Your task to perform on an android device: turn pop-ups on in chrome Image 0: 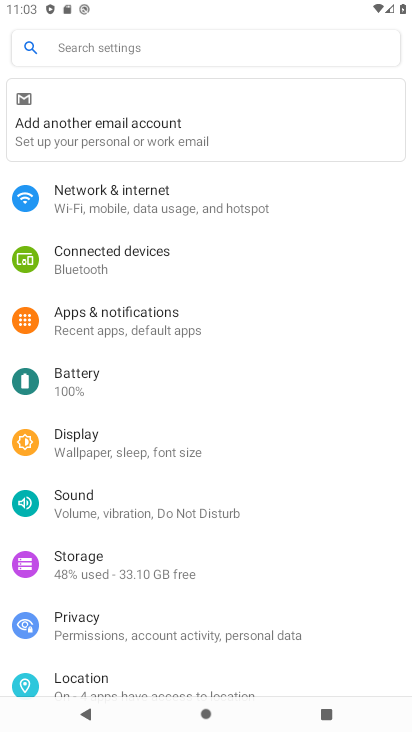
Step 0: press home button
Your task to perform on an android device: turn pop-ups on in chrome Image 1: 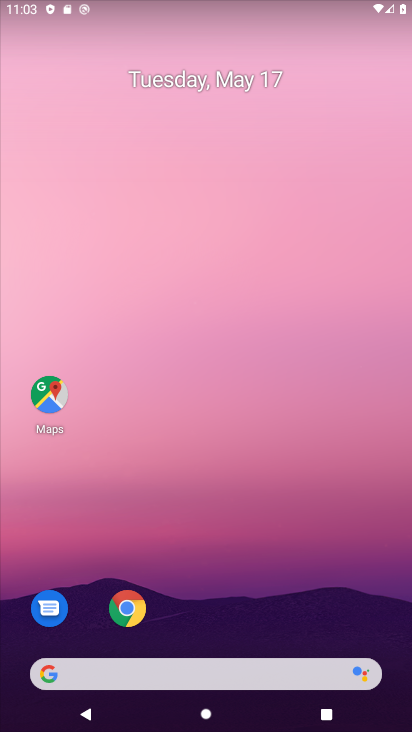
Step 1: click (135, 601)
Your task to perform on an android device: turn pop-ups on in chrome Image 2: 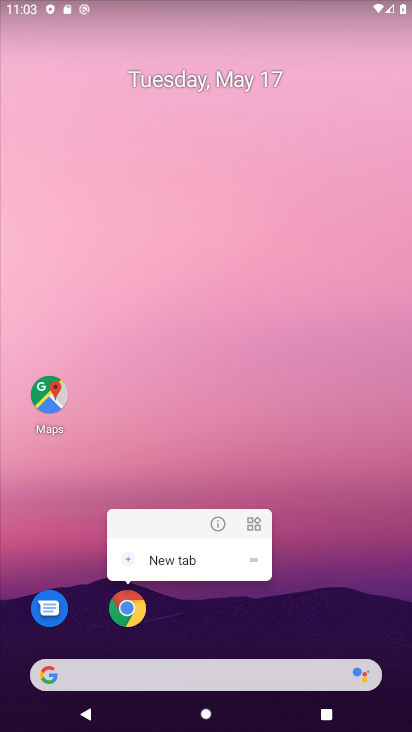
Step 2: click (137, 604)
Your task to perform on an android device: turn pop-ups on in chrome Image 3: 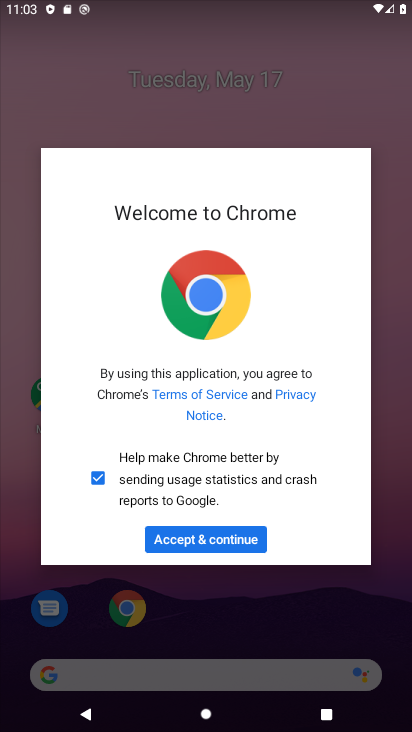
Step 3: click (214, 536)
Your task to perform on an android device: turn pop-ups on in chrome Image 4: 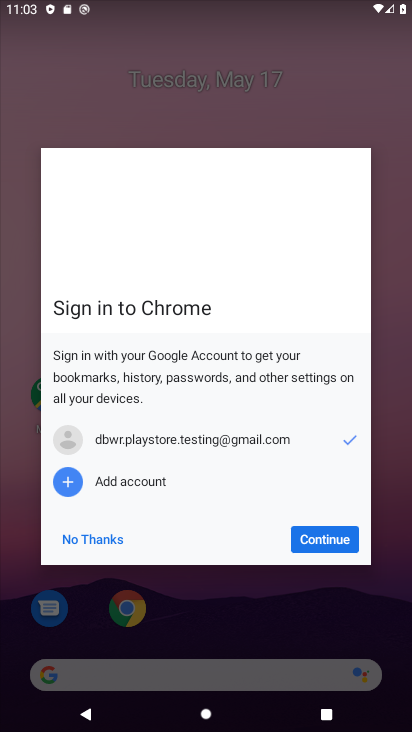
Step 4: click (304, 538)
Your task to perform on an android device: turn pop-ups on in chrome Image 5: 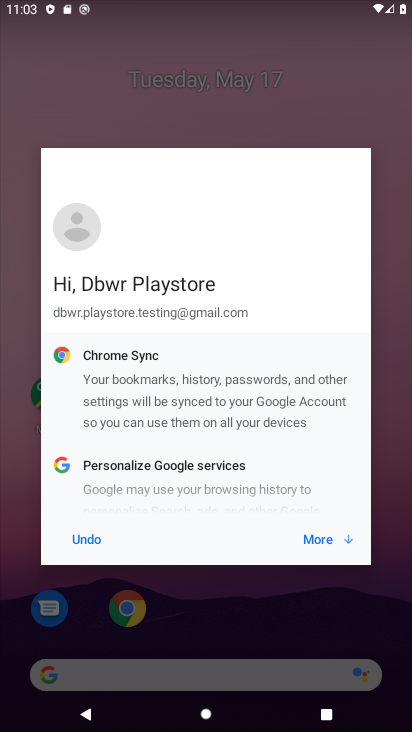
Step 5: click (301, 538)
Your task to perform on an android device: turn pop-ups on in chrome Image 6: 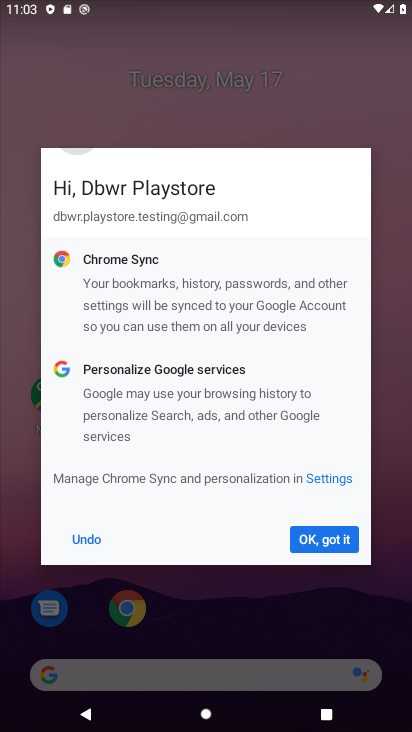
Step 6: click (281, 538)
Your task to perform on an android device: turn pop-ups on in chrome Image 7: 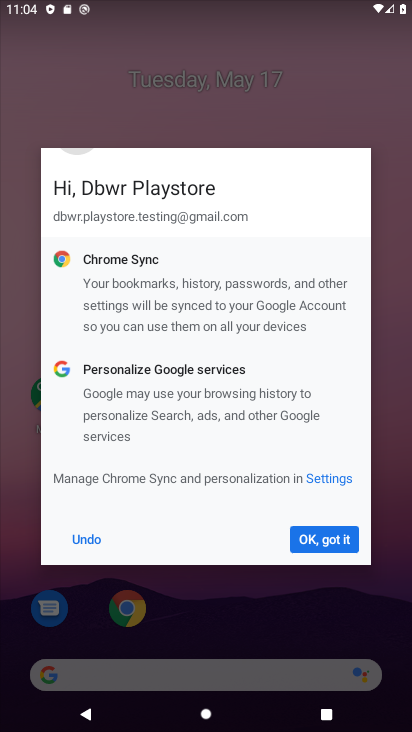
Step 7: click (306, 554)
Your task to perform on an android device: turn pop-ups on in chrome Image 8: 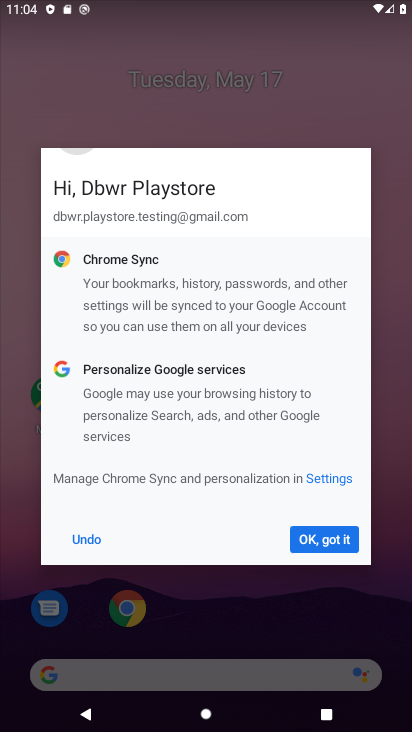
Step 8: click (320, 539)
Your task to perform on an android device: turn pop-ups on in chrome Image 9: 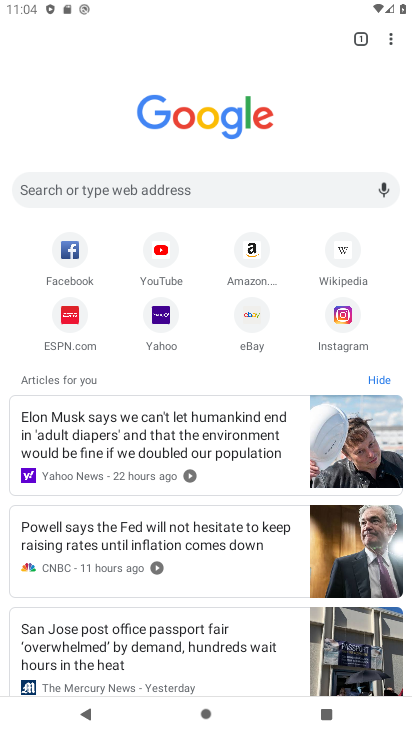
Step 9: click (396, 48)
Your task to perform on an android device: turn pop-ups on in chrome Image 10: 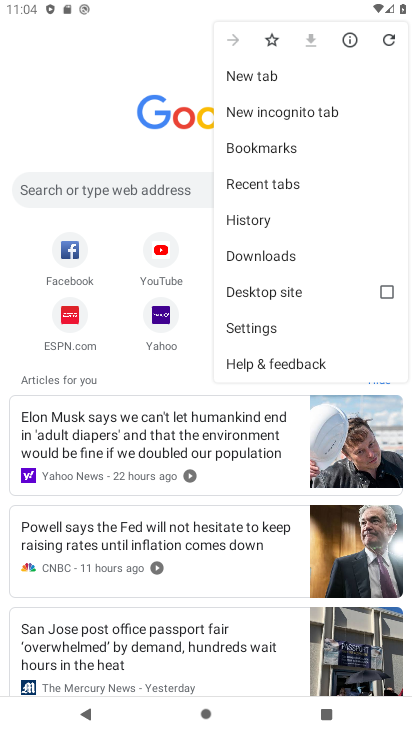
Step 10: click (256, 327)
Your task to perform on an android device: turn pop-ups on in chrome Image 11: 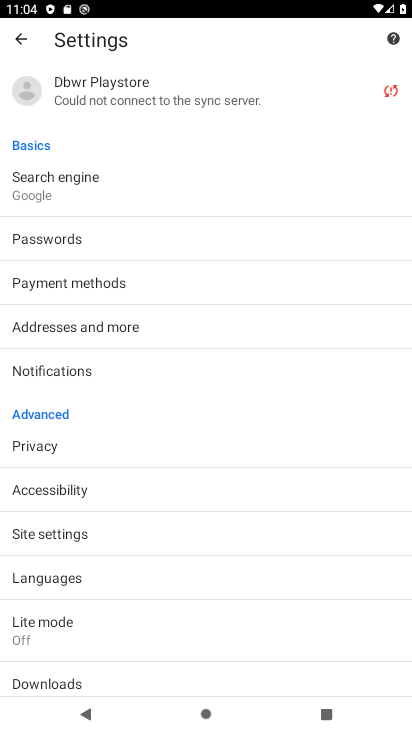
Step 11: click (95, 541)
Your task to perform on an android device: turn pop-ups on in chrome Image 12: 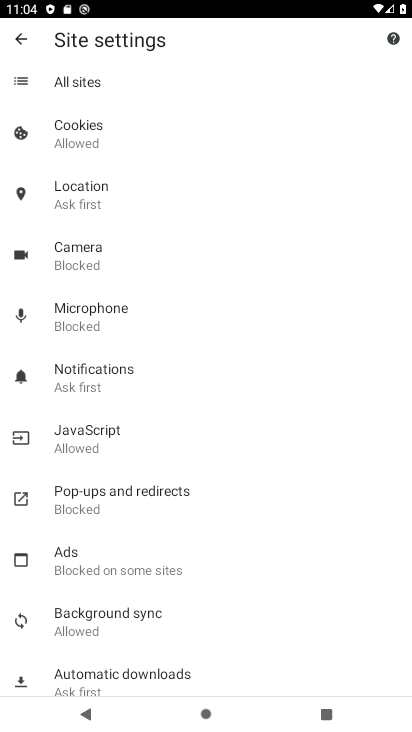
Step 12: click (112, 494)
Your task to perform on an android device: turn pop-ups on in chrome Image 13: 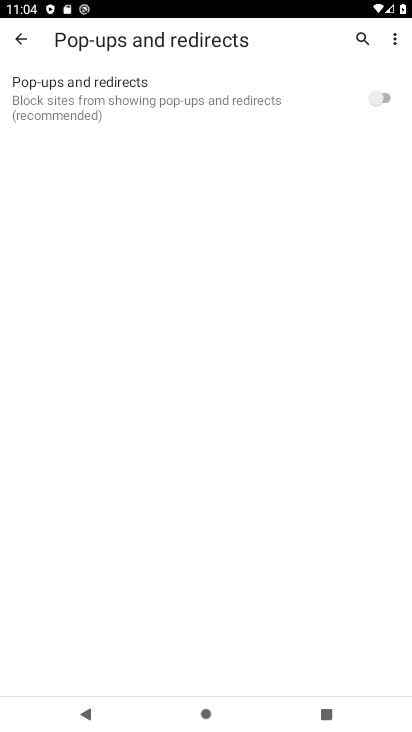
Step 13: click (384, 100)
Your task to perform on an android device: turn pop-ups on in chrome Image 14: 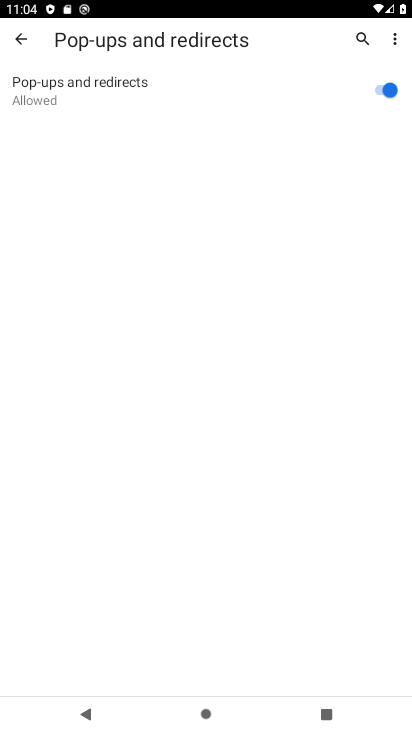
Step 14: task complete